Your task to perform on an android device: Go to Google maps Image 0: 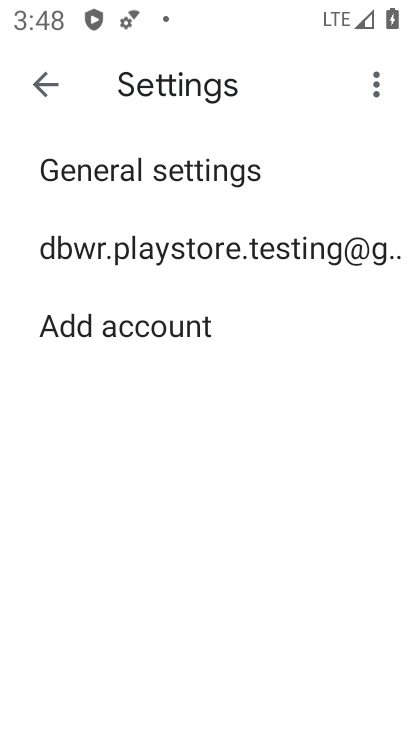
Step 0: press home button
Your task to perform on an android device: Go to Google maps Image 1: 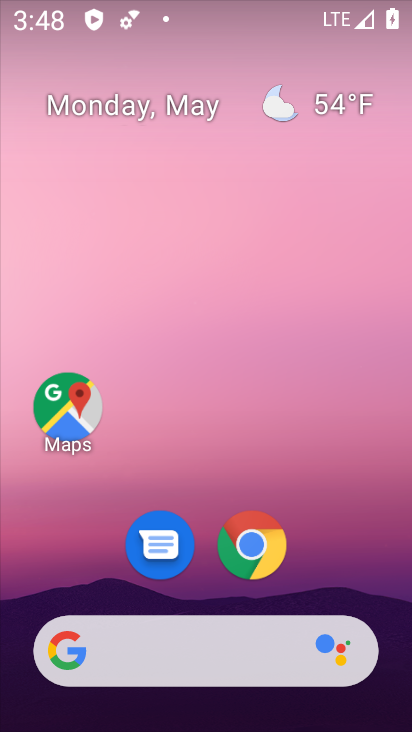
Step 1: click (63, 403)
Your task to perform on an android device: Go to Google maps Image 2: 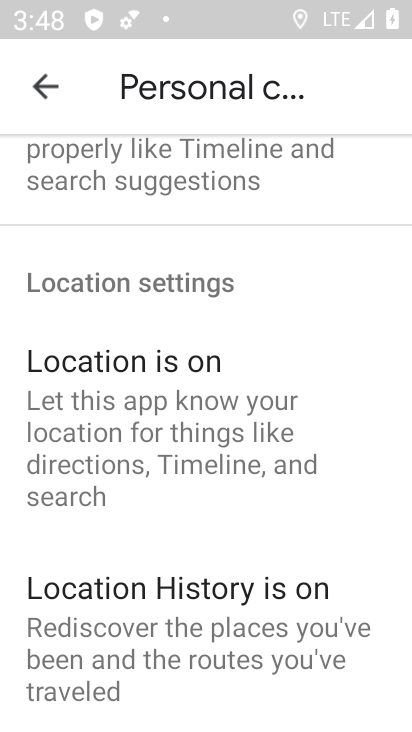
Step 2: task complete